Your task to perform on an android device: Open Google Maps Image 0: 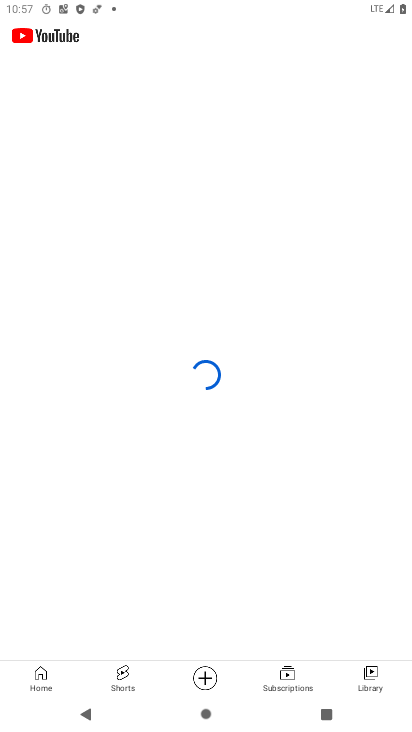
Step 0: press home button
Your task to perform on an android device: Open Google Maps Image 1: 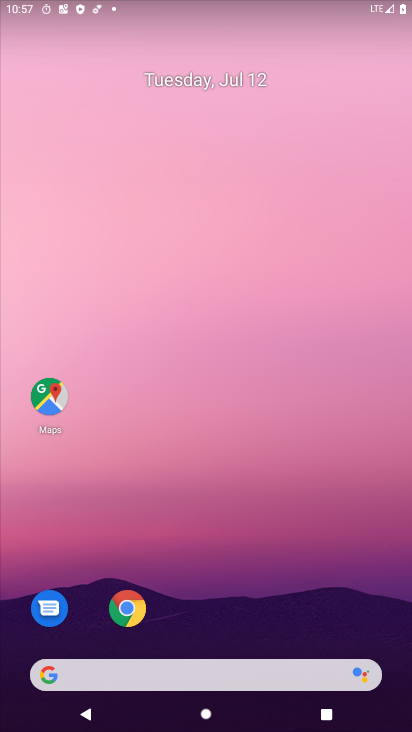
Step 1: click (54, 377)
Your task to perform on an android device: Open Google Maps Image 2: 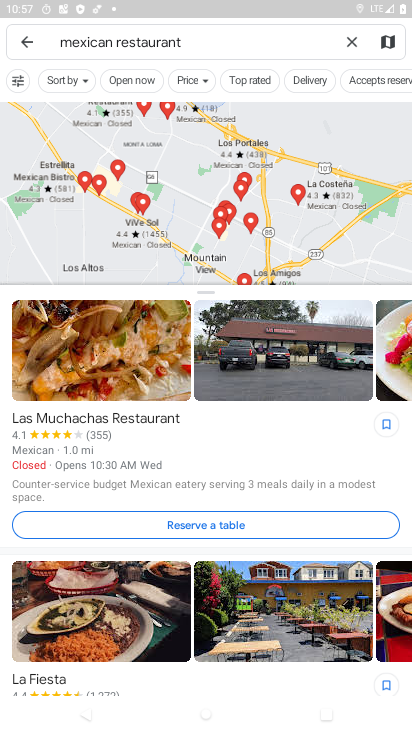
Step 2: task complete